Your task to perform on an android device: Go to location settings Image 0: 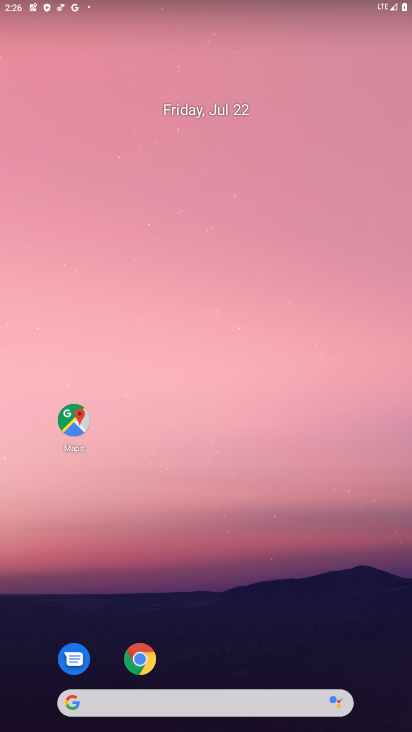
Step 0: click (139, 661)
Your task to perform on an android device: Go to location settings Image 1: 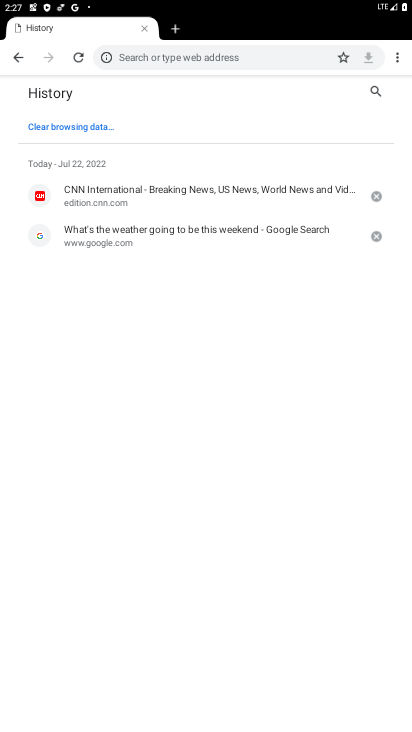
Step 1: press home button
Your task to perform on an android device: Go to location settings Image 2: 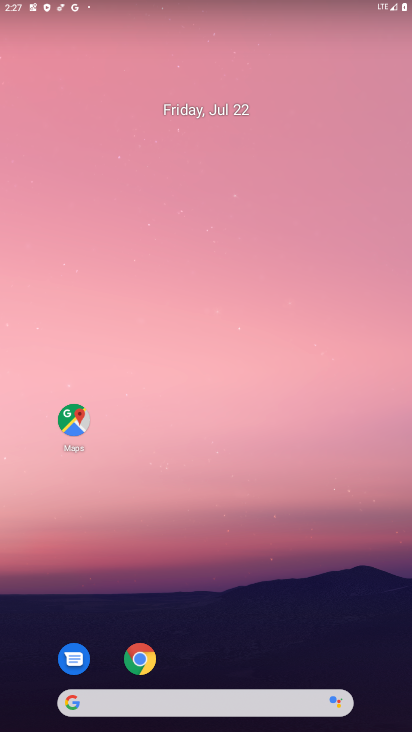
Step 2: click (204, 643)
Your task to perform on an android device: Go to location settings Image 3: 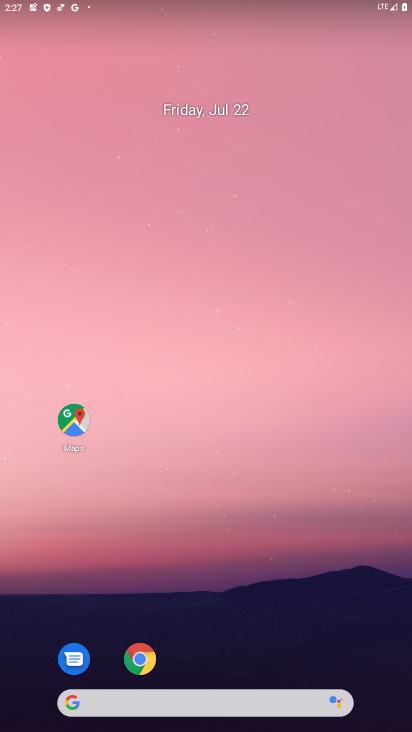
Step 3: drag from (181, 601) to (215, 82)
Your task to perform on an android device: Go to location settings Image 4: 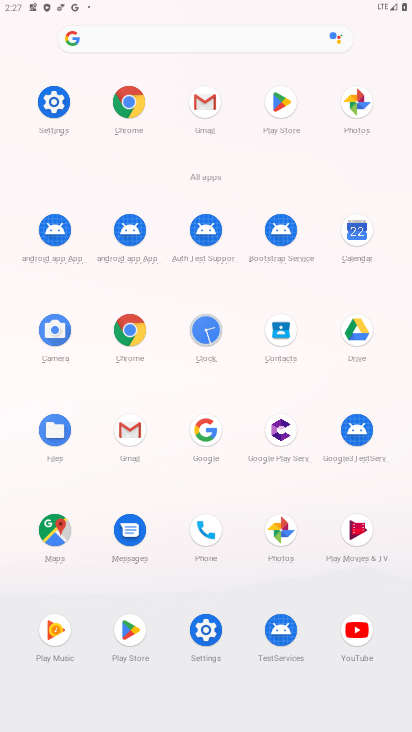
Step 4: click (47, 105)
Your task to perform on an android device: Go to location settings Image 5: 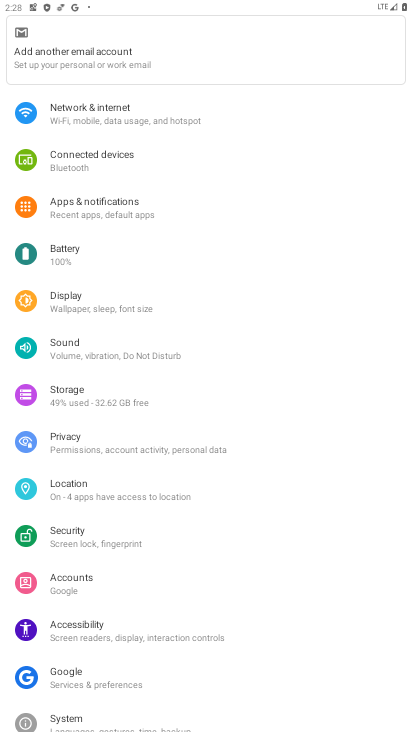
Step 5: click (101, 491)
Your task to perform on an android device: Go to location settings Image 6: 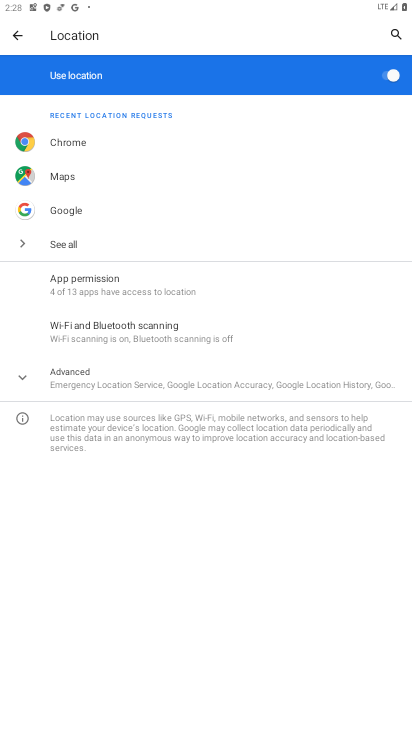
Step 6: click (174, 378)
Your task to perform on an android device: Go to location settings Image 7: 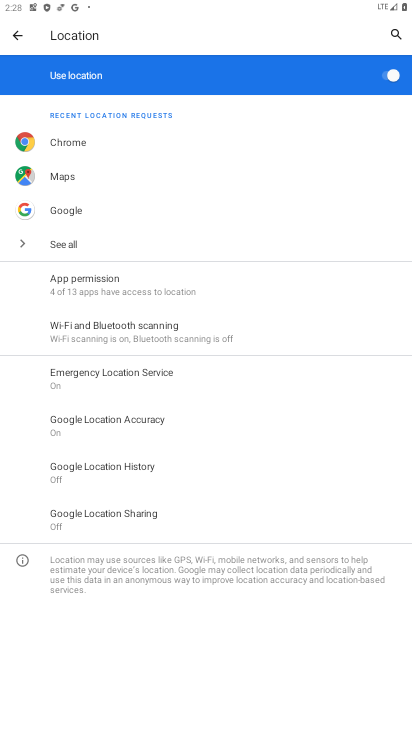
Step 7: task complete